Your task to perform on an android device: turn smart compose on in the gmail app Image 0: 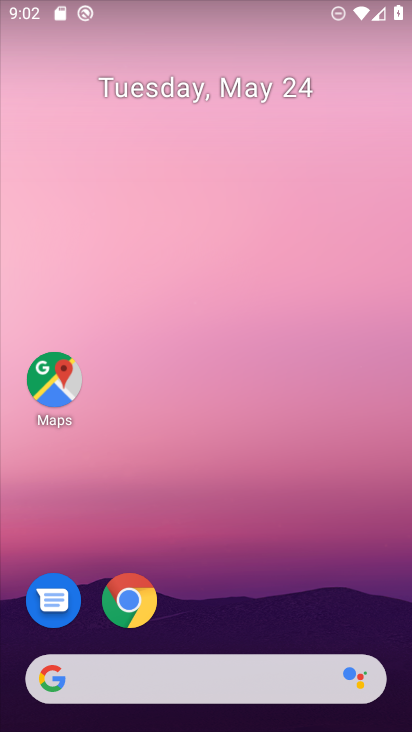
Step 0: drag from (191, 615) to (108, 33)
Your task to perform on an android device: turn smart compose on in the gmail app Image 1: 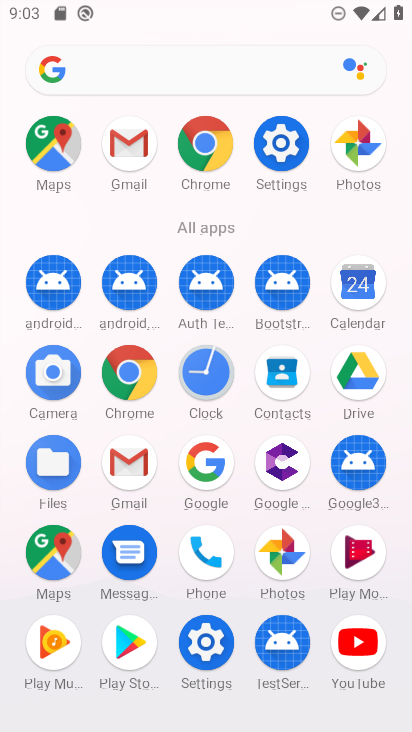
Step 1: click (133, 122)
Your task to perform on an android device: turn smart compose on in the gmail app Image 2: 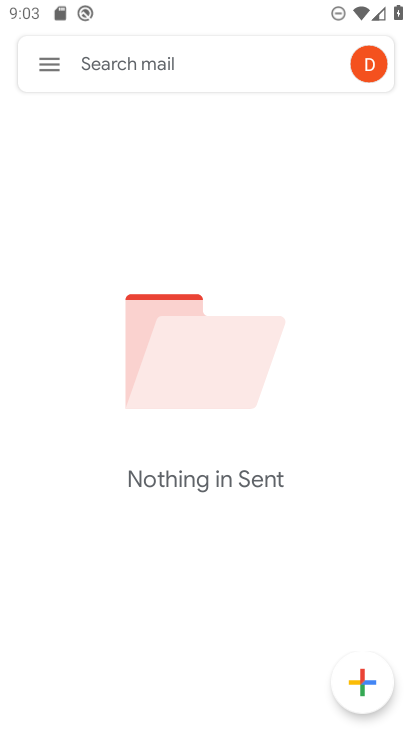
Step 2: click (46, 68)
Your task to perform on an android device: turn smart compose on in the gmail app Image 3: 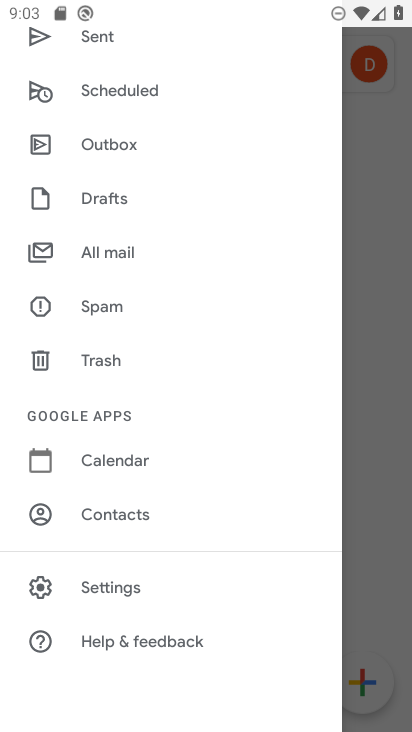
Step 3: click (90, 589)
Your task to perform on an android device: turn smart compose on in the gmail app Image 4: 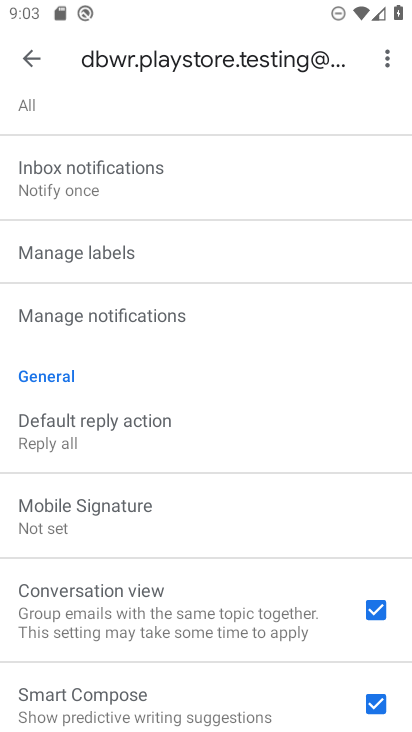
Step 4: task complete